Your task to perform on an android device: Clear the shopping cart on bestbuy.com. Image 0: 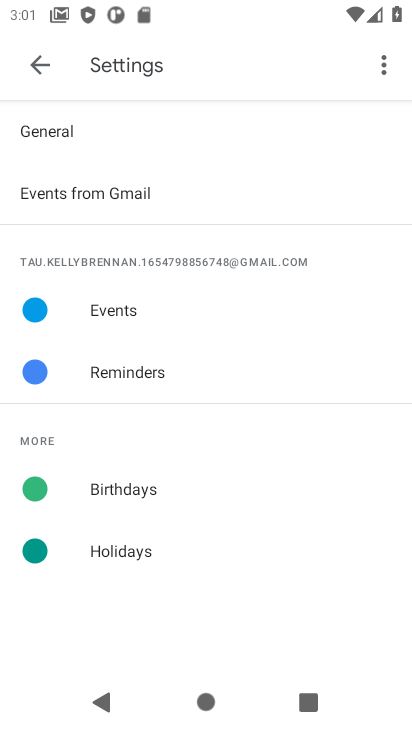
Step 0: press home button
Your task to perform on an android device: Clear the shopping cart on bestbuy.com. Image 1: 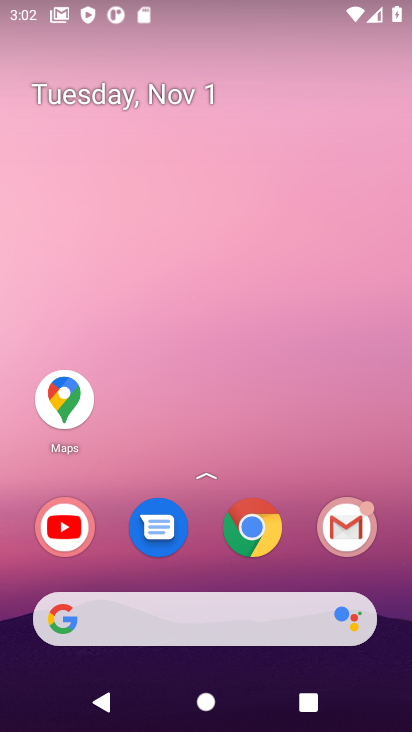
Step 1: click (201, 625)
Your task to perform on an android device: Clear the shopping cart on bestbuy.com. Image 2: 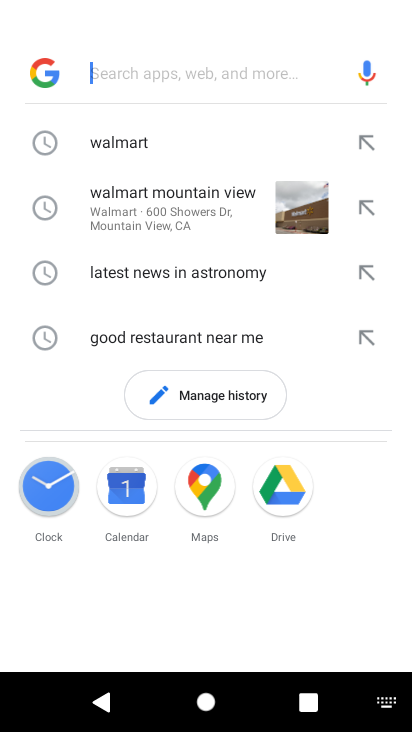
Step 2: type "Task status"
Your task to perform on an android device: Clear the shopping cart on bestbuy.com. Image 3: 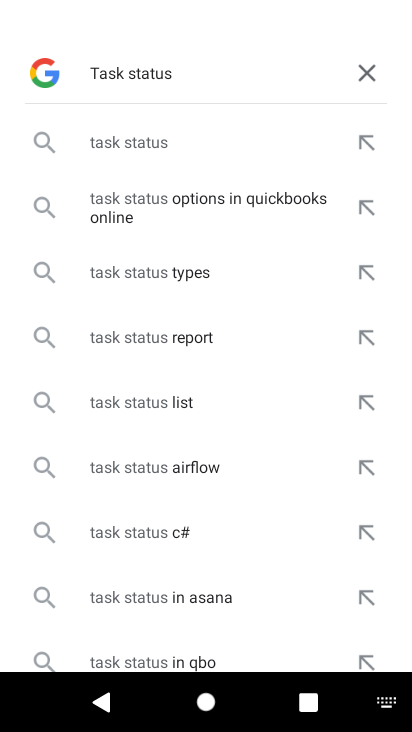
Step 3: click (359, 67)
Your task to perform on an android device: Clear the shopping cart on bestbuy.com. Image 4: 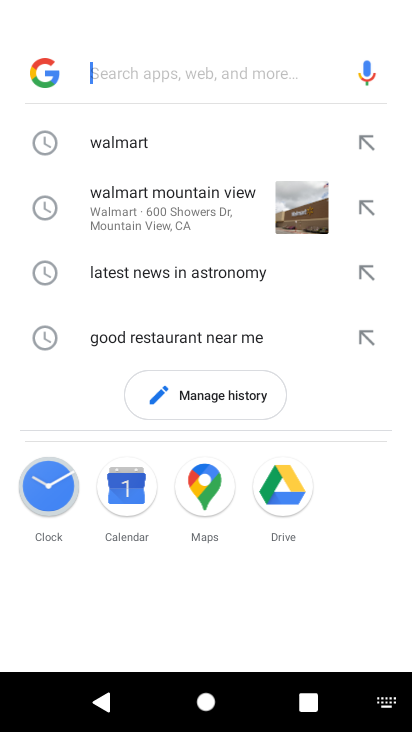
Step 4: type "bestbuy.com"
Your task to perform on an android device: Clear the shopping cart on bestbuy.com. Image 5: 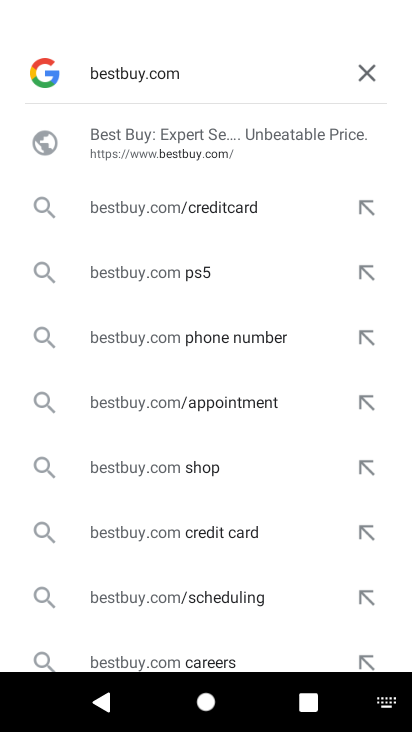
Step 5: click (201, 149)
Your task to perform on an android device: Clear the shopping cart on bestbuy.com. Image 6: 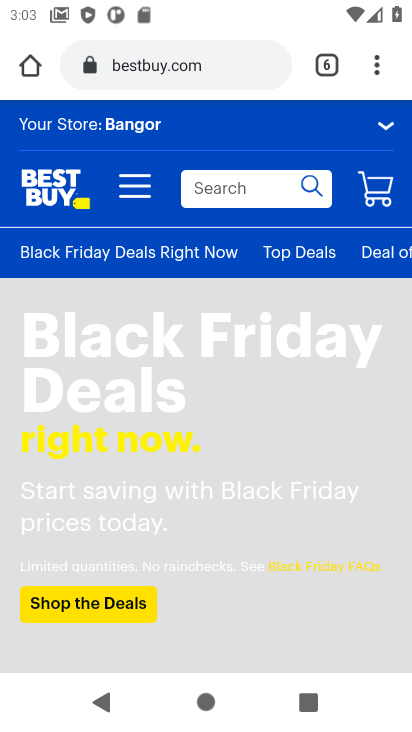
Step 6: click (212, 176)
Your task to perform on an android device: Clear the shopping cart on bestbuy.com. Image 7: 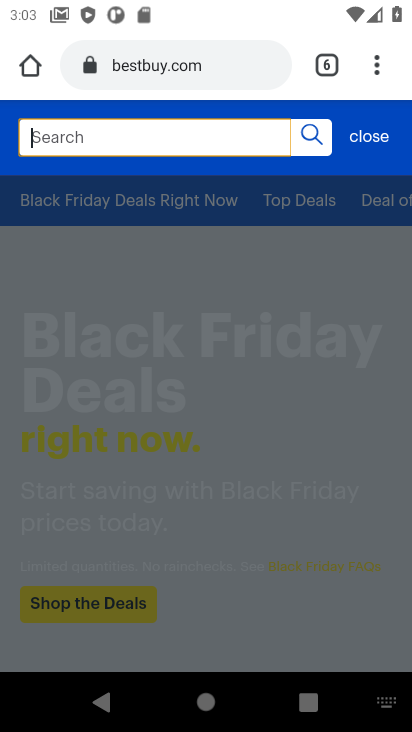
Step 7: click (376, 132)
Your task to perform on an android device: Clear the shopping cart on bestbuy.com. Image 8: 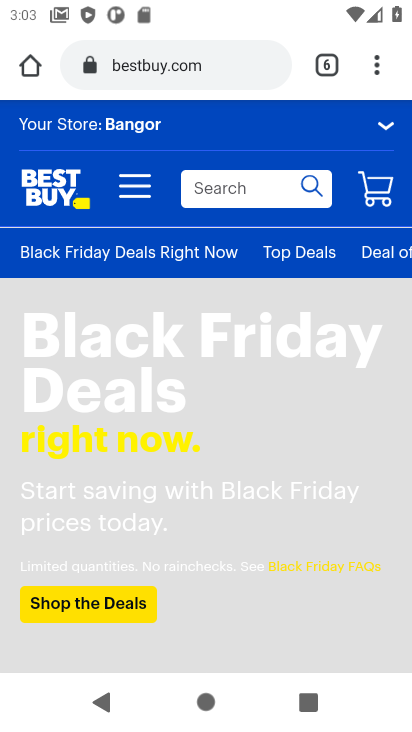
Step 8: click (371, 196)
Your task to perform on an android device: Clear the shopping cart on bestbuy.com. Image 9: 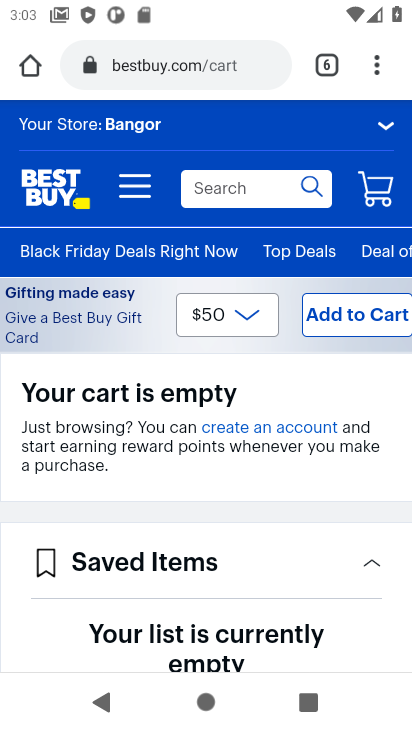
Step 9: task complete